Your task to perform on an android device: Clear the cart on walmart. Add acer predator to the cart on walmart, then select checkout. Image 0: 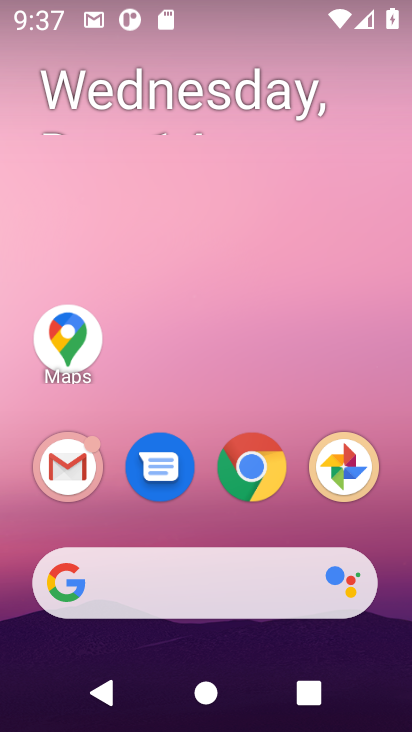
Step 0: click (255, 497)
Your task to perform on an android device: Clear the cart on walmart. Add acer predator to the cart on walmart, then select checkout. Image 1: 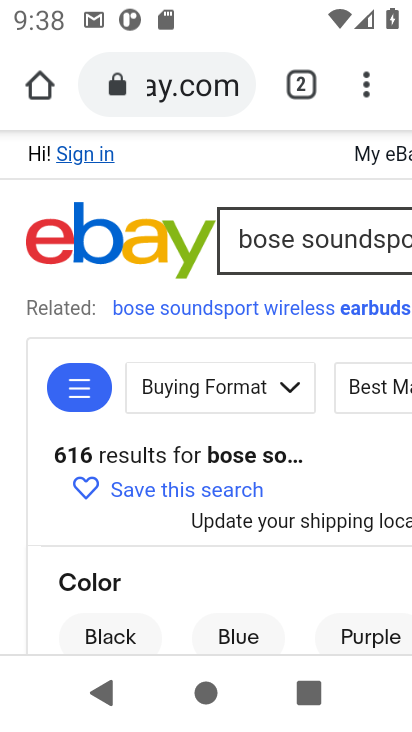
Step 1: click (182, 72)
Your task to perform on an android device: Clear the cart on walmart. Add acer predator to the cart on walmart, then select checkout. Image 2: 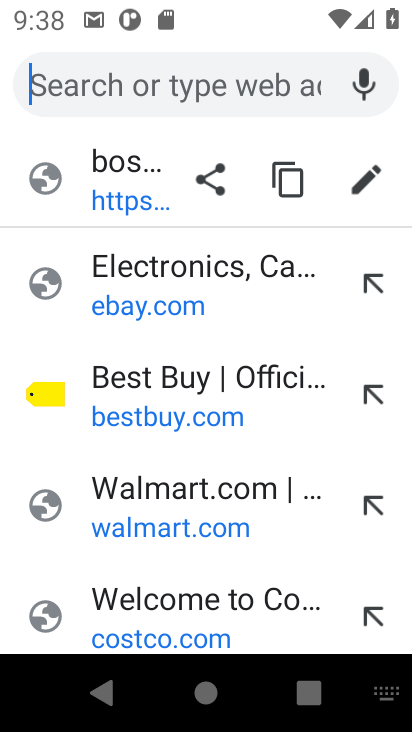
Step 2: click (190, 526)
Your task to perform on an android device: Clear the cart on walmart. Add acer predator to the cart on walmart, then select checkout. Image 3: 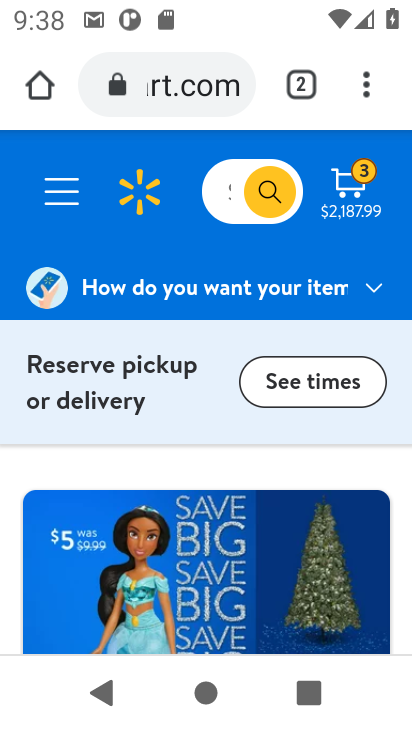
Step 3: click (225, 190)
Your task to perform on an android device: Clear the cart on walmart. Add acer predator to the cart on walmart, then select checkout. Image 4: 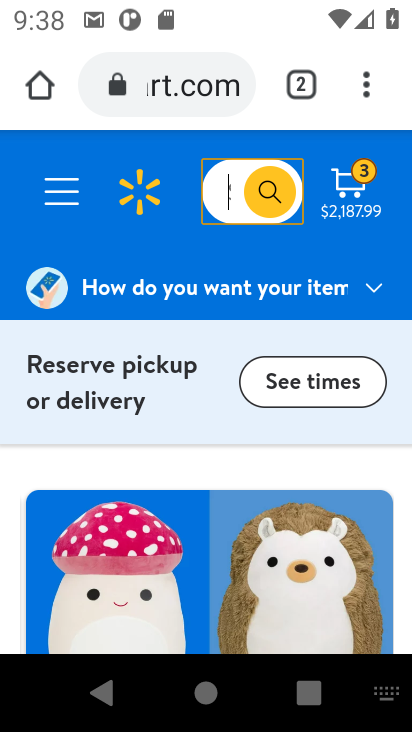
Step 4: click (261, 208)
Your task to perform on an android device: Clear the cart on walmart. Add acer predator to the cart on walmart, then select checkout. Image 5: 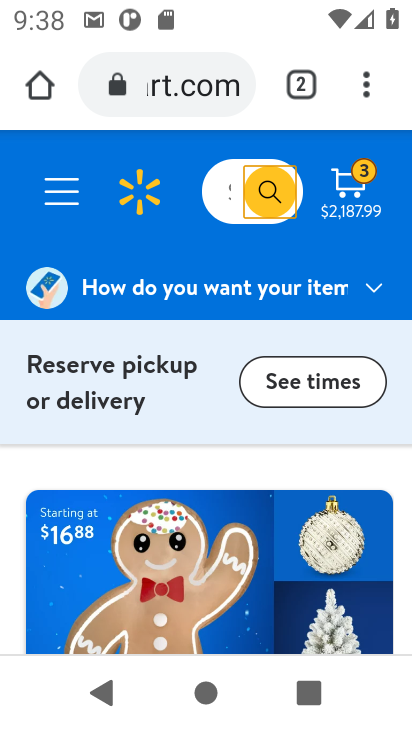
Step 5: task complete